Your task to perform on an android device: Go to calendar. Show me events next week Image 0: 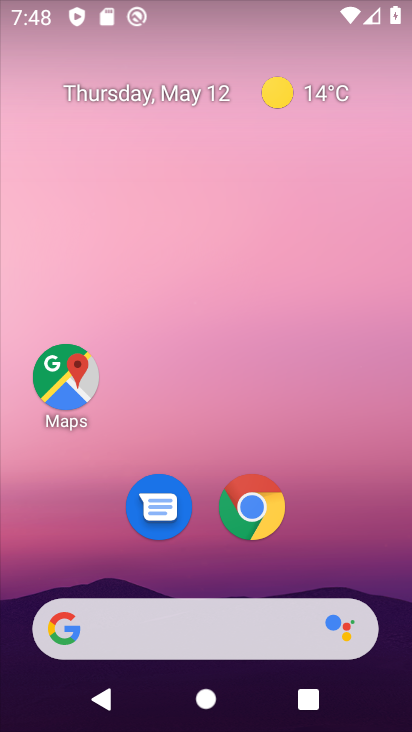
Step 0: drag from (253, 529) to (256, 167)
Your task to perform on an android device: Go to calendar. Show me events next week Image 1: 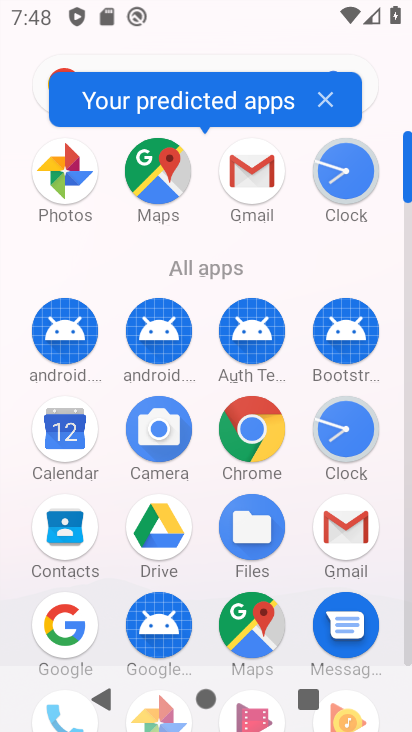
Step 1: click (70, 447)
Your task to perform on an android device: Go to calendar. Show me events next week Image 2: 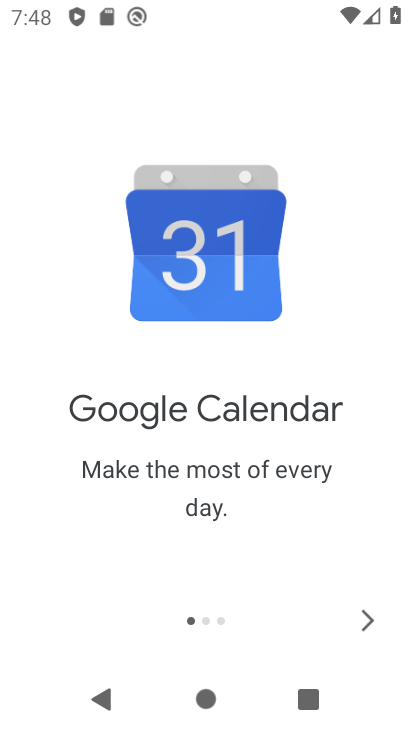
Step 2: click (365, 609)
Your task to perform on an android device: Go to calendar. Show me events next week Image 3: 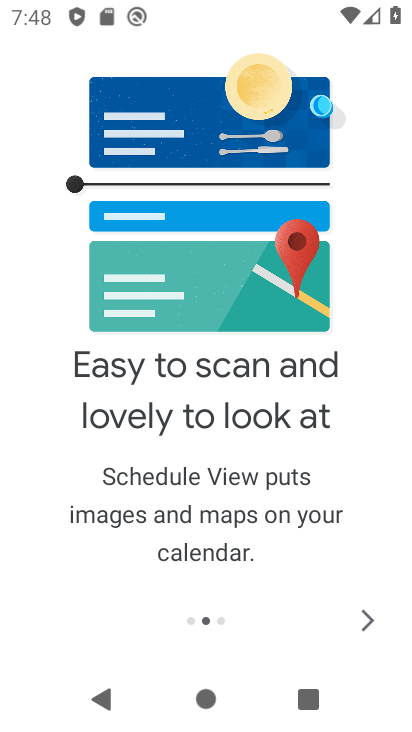
Step 3: click (353, 612)
Your task to perform on an android device: Go to calendar. Show me events next week Image 4: 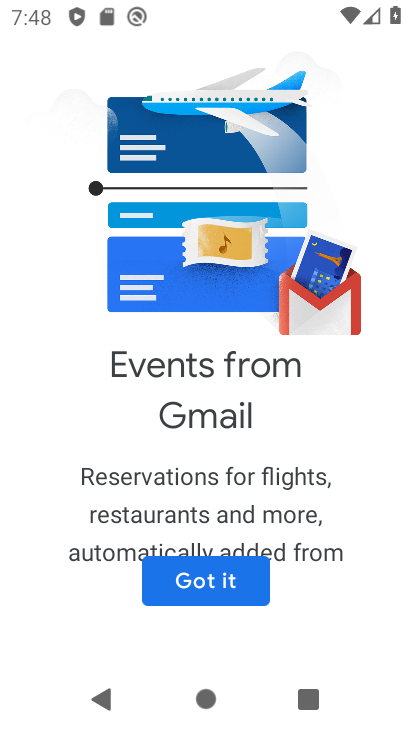
Step 4: click (239, 590)
Your task to perform on an android device: Go to calendar. Show me events next week Image 5: 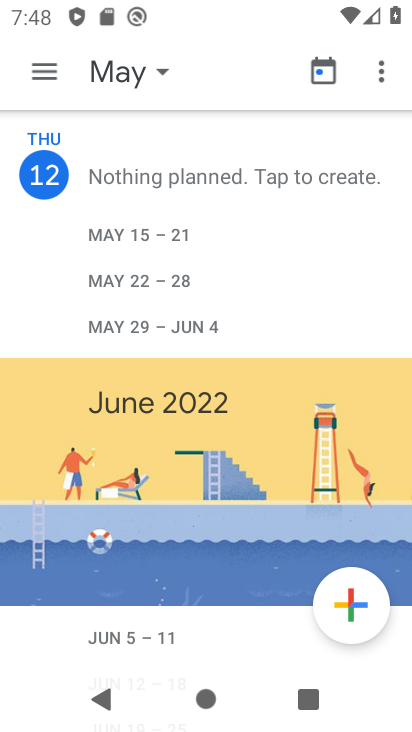
Step 5: click (40, 71)
Your task to perform on an android device: Go to calendar. Show me events next week Image 6: 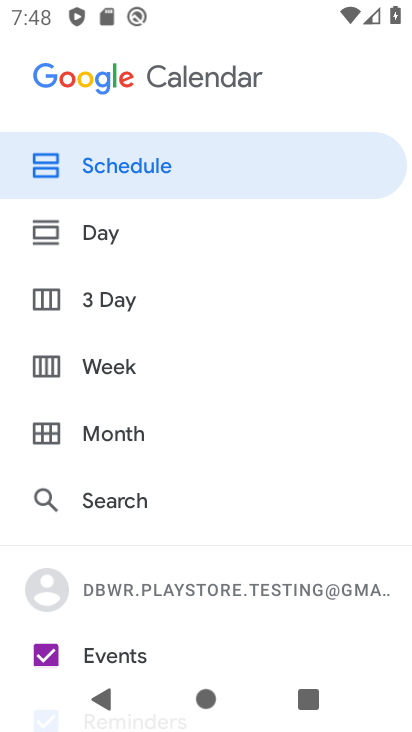
Step 6: click (153, 362)
Your task to perform on an android device: Go to calendar. Show me events next week Image 7: 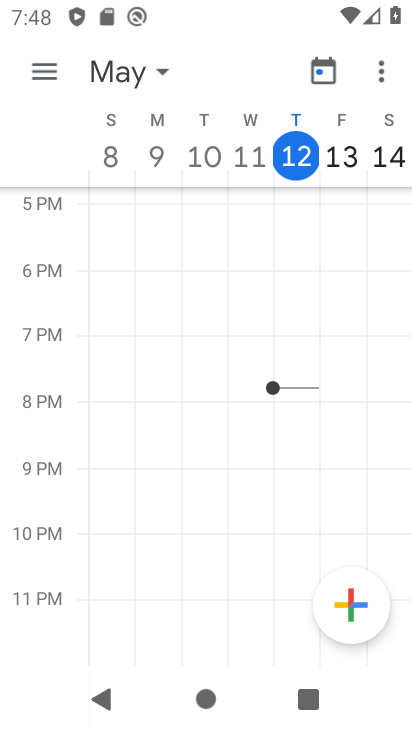
Step 7: task complete